Your task to perform on an android device: Search for sushi restaurants on Maps Image 0: 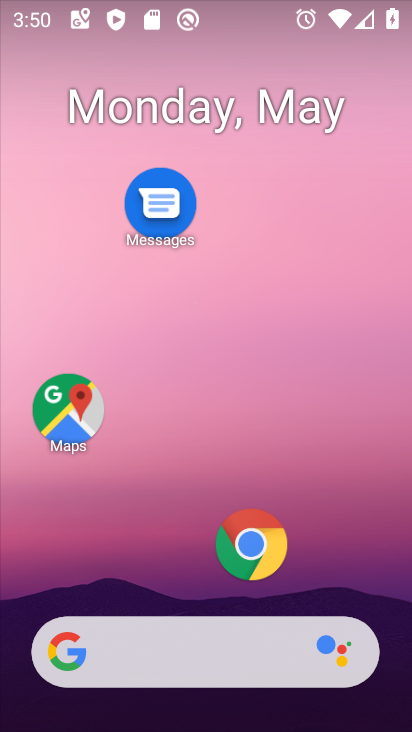
Step 0: click (68, 423)
Your task to perform on an android device: Search for sushi restaurants on Maps Image 1: 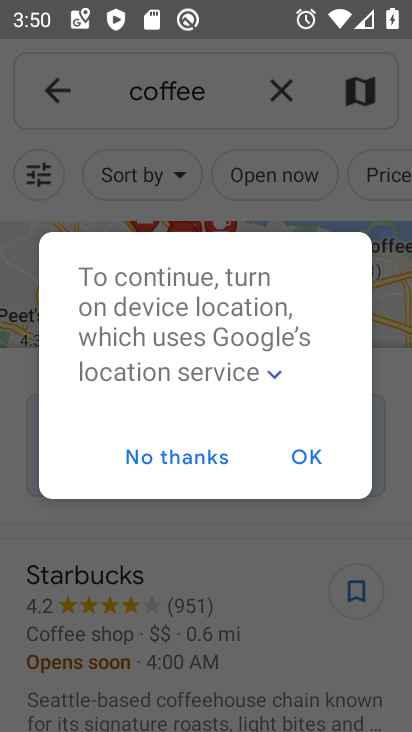
Step 1: click (309, 459)
Your task to perform on an android device: Search for sushi restaurants on Maps Image 2: 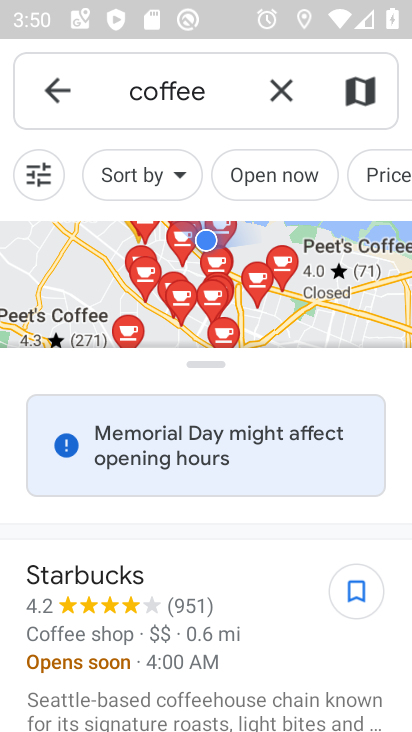
Step 2: click (277, 98)
Your task to perform on an android device: Search for sushi restaurants on Maps Image 3: 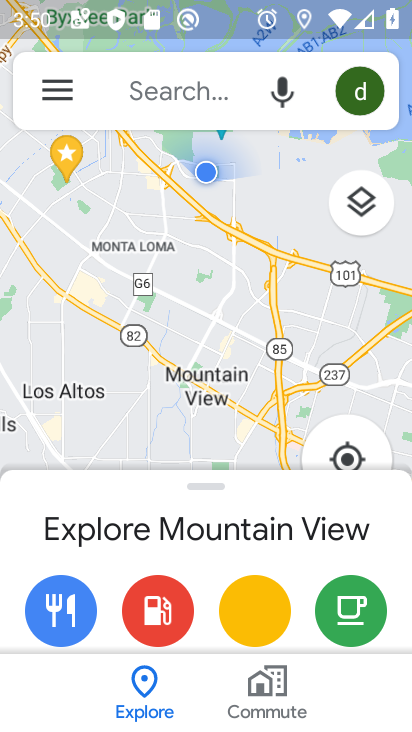
Step 3: click (196, 88)
Your task to perform on an android device: Search for sushi restaurants on Maps Image 4: 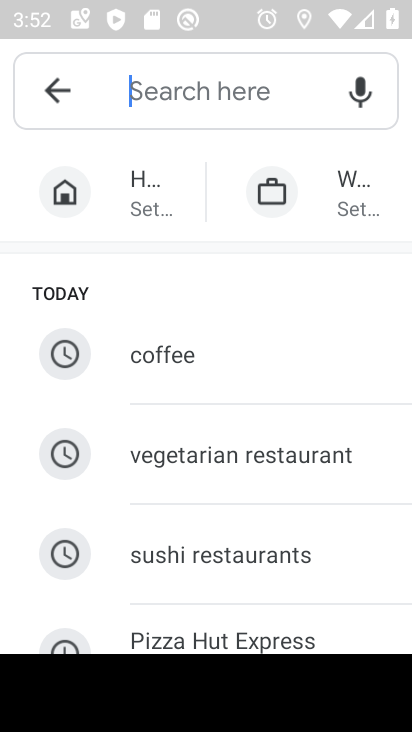
Step 4: click (178, 92)
Your task to perform on an android device: Search for sushi restaurants on Maps Image 5: 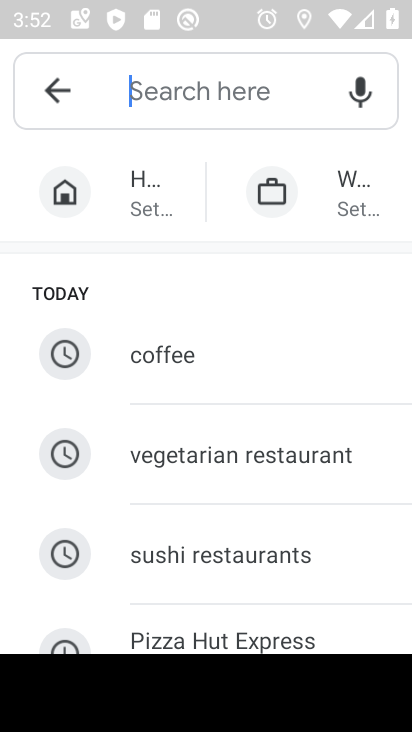
Step 5: type "sushi restaurants"
Your task to perform on an android device: Search for sushi restaurants on Maps Image 6: 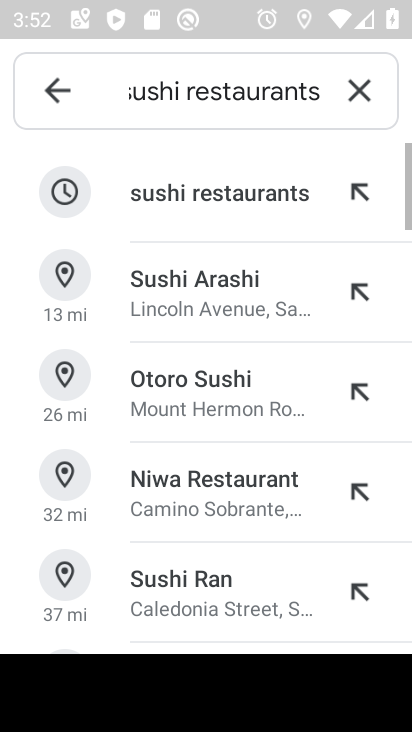
Step 6: click (200, 203)
Your task to perform on an android device: Search for sushi restaurants on Maps Image 7: 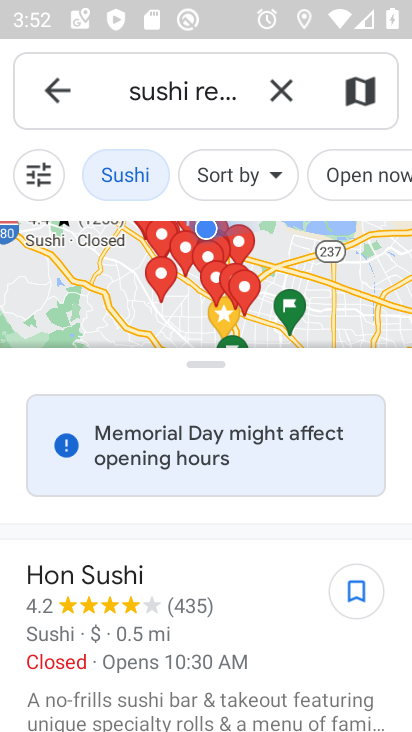
Step 7: task complete